Your task to perform on an android device: turn on javascript in the chrome app Image 0: 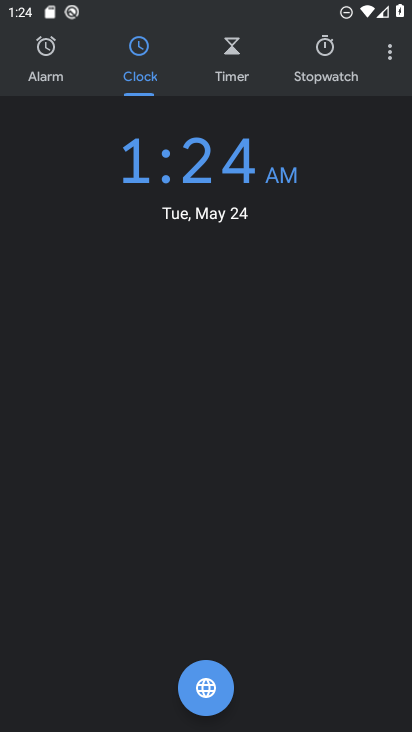
Step 0: press home button
Your task to perform on an android device: turn on javascript in the chrome app Image 1: 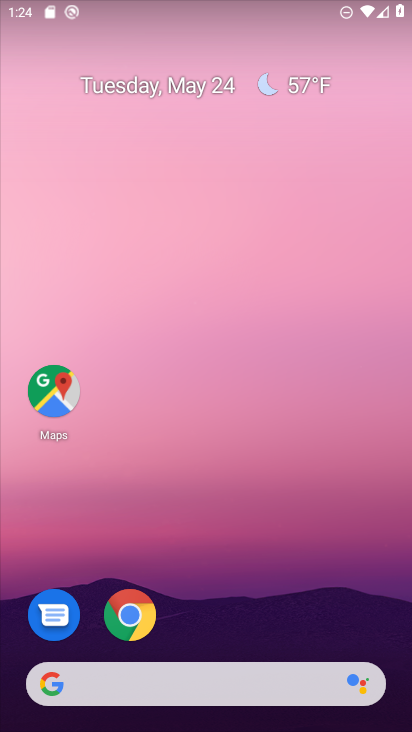
Step 1: click (117, 621)
Your task to perform on an android device: turn on javascript in the chrome app Image 2: 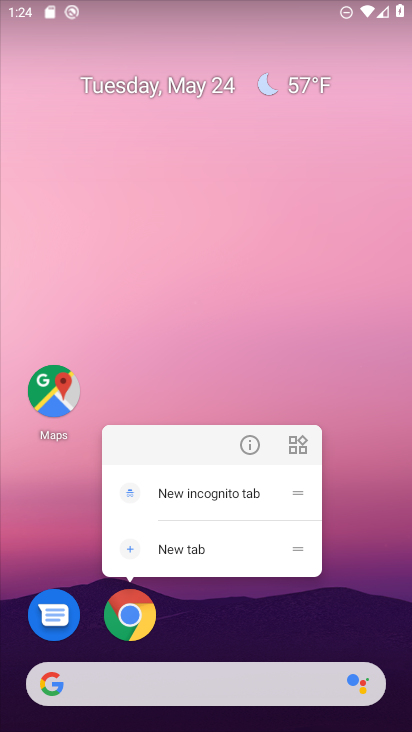
Step 2: click (138, 612)
Your task to perform on an android device: turn on javascript in the chrome app Image 3: 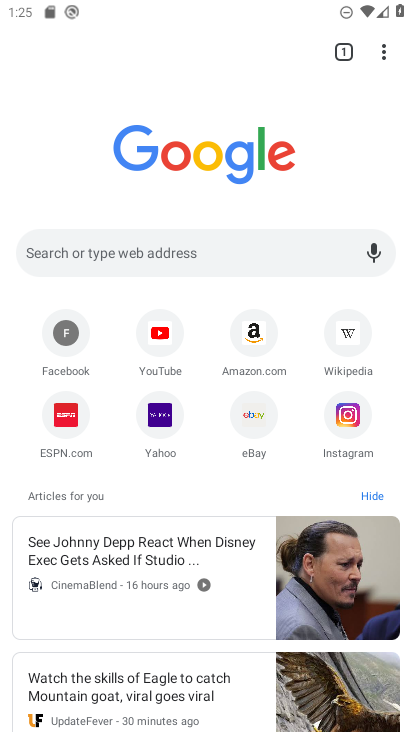
Step 3: click (383, 50)
Your task to perform on an android device: turn on javascript in the chrome app Image 4: 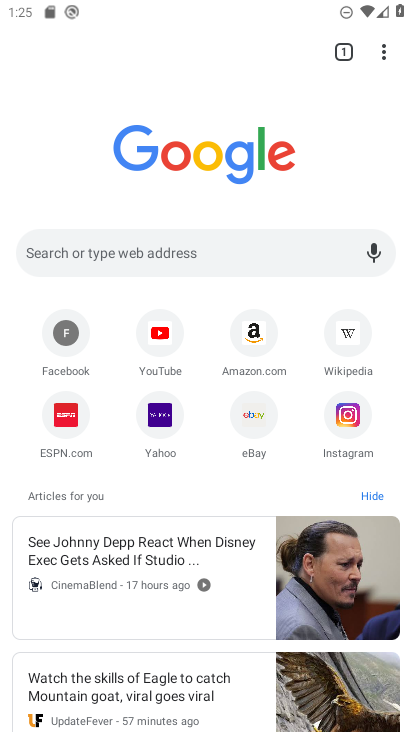
Step 4: click (383, 51)
Your task to perform on an android device: turn on javascript in the chrome app Image 5: 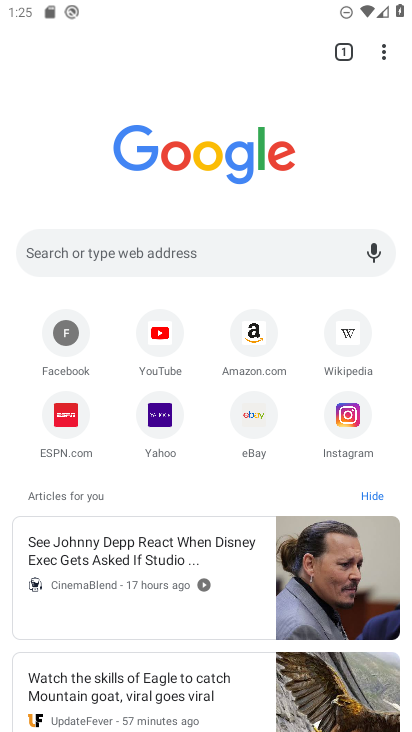
Step 5: click (381, 53)
Your task to perform on an android device: turn on javascript in the chrome app Image 6: 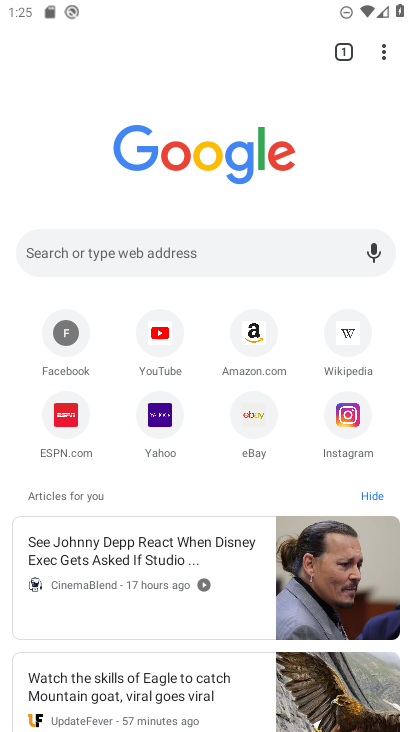
Step 6: click (379, 54)
Your task to perform on an android device: turn on javascript in the chrome app Image 7: 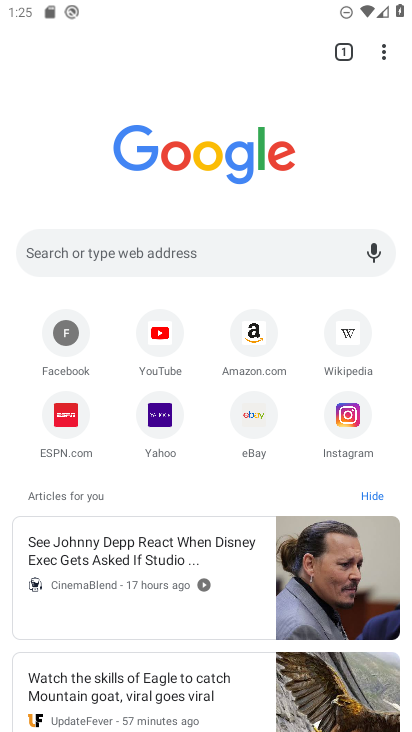
Step 7: click (378, 56)
Your task to perform on an android device: turn on javascript in the chrome app Image 8: 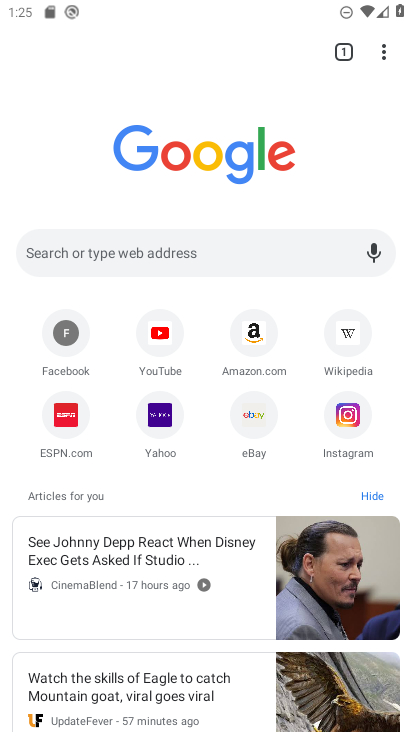
Step 8: click (386, 53)
Your task to perform on an android device: turn on javascript in the chrome app Image 9: 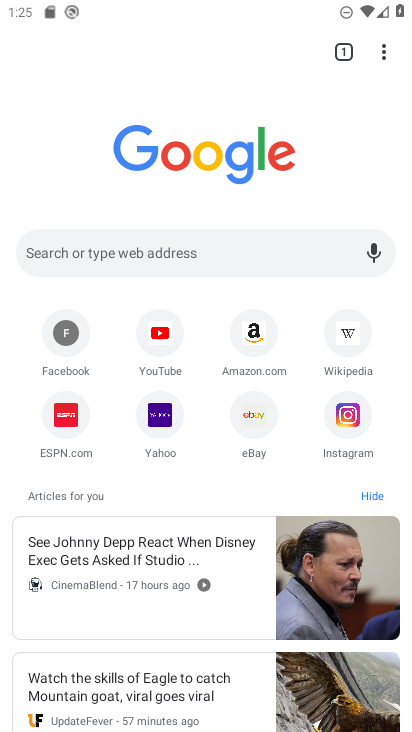
Step 9: click (377, 42)
Your task to perform on an android device: turn on javascript in the chrome app Image 10: 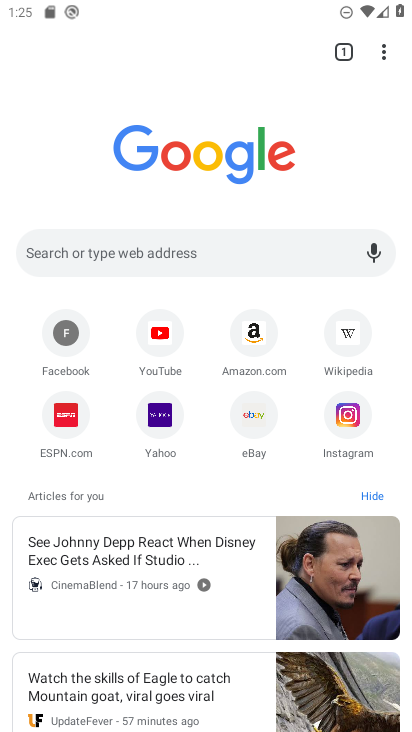
Step 10: click (376, 41)
Your task to perform on an android device: turn on javascript in the chrome app Image 11: 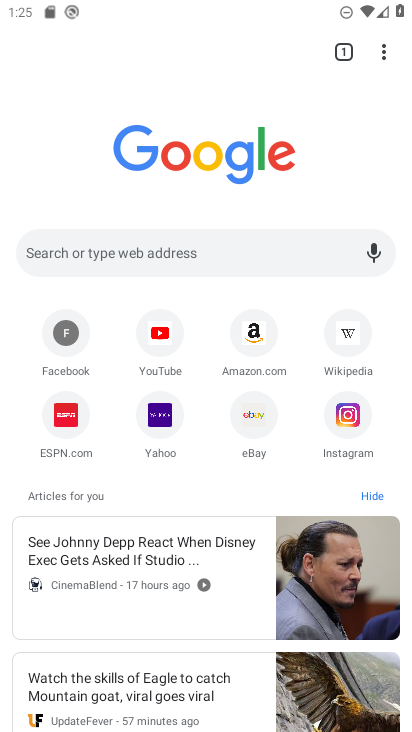
Step 11: click (386, 55)
Your task to perform on an android device: turn on javascript in the chrome app Image 12: 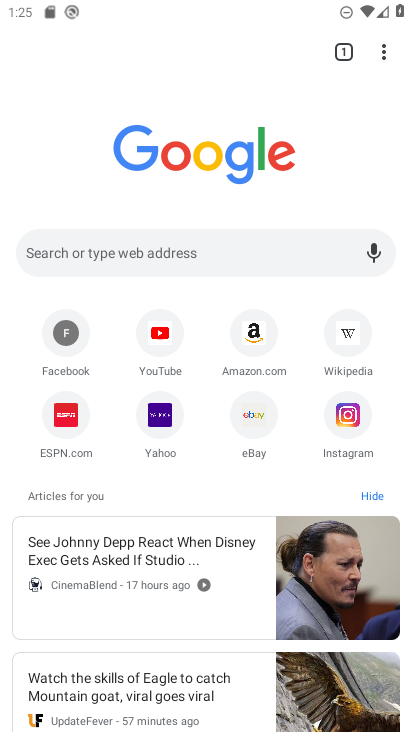
Step 12: click (378, 48)
Your task to perform on an android device: turn on javascript in the chrome app Image 13: 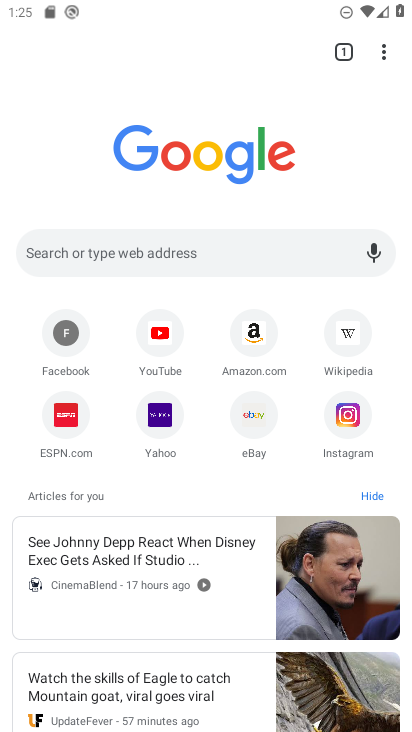
Step 13: click (391, 55)
Your task to perform on an android device: turn on javascript in the chrome app Image 14: 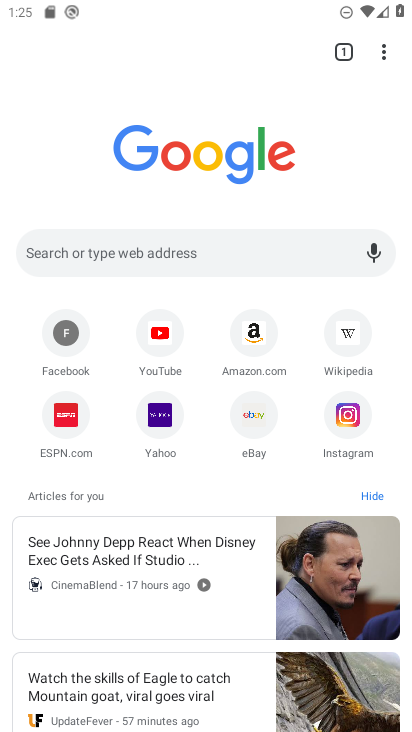
Step 14: click (379, 51)
Your task to perform on an android device: turn on javascript in the chrome app Image 15: 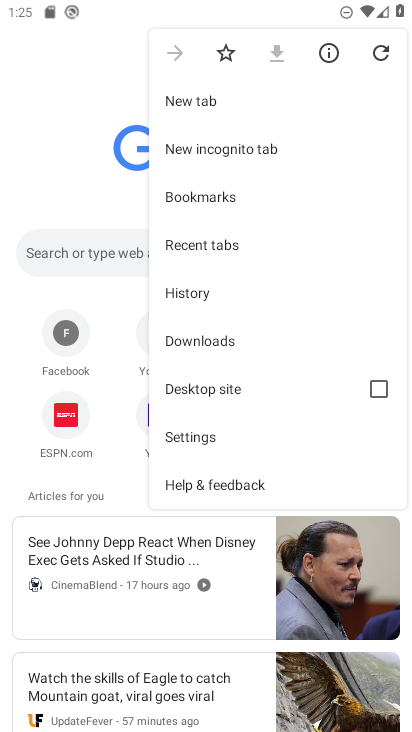
Step 15: click (220, 435)
Your task to perform on an android device: turn on javascript in the chrome app Image 16: 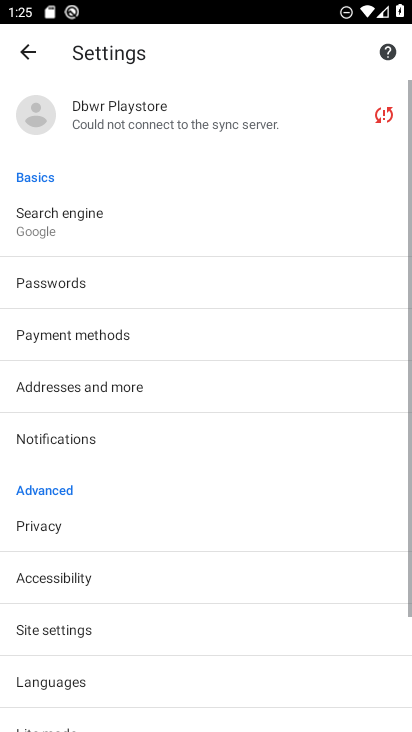
Step 16: click (68, 630)
Your task to perform on an android device: turn on javascript in the chrome app Image 17: 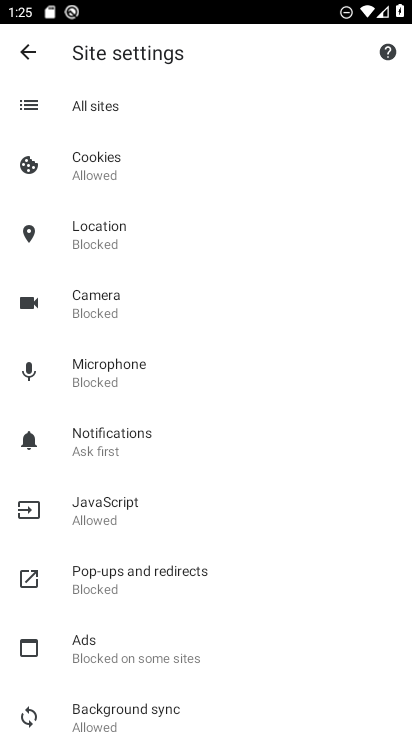
Step 17: click (131, 527)
Your task to perform on an android device: turn on javascript in the chrome app Image 18: 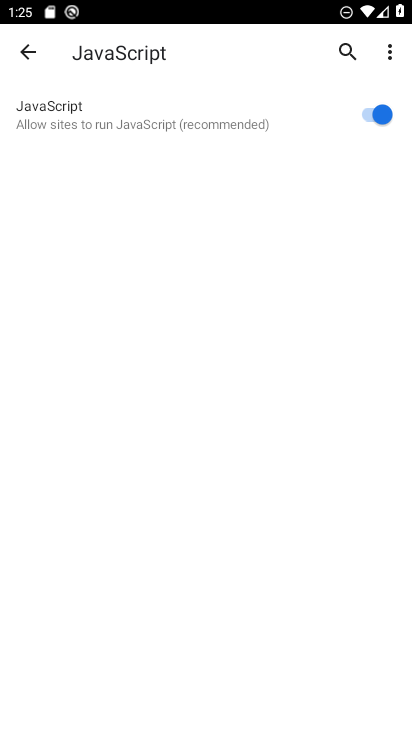
Step 18: task complete